Your task to perform on an android device: Go to calendar. Show me events next week Image 0: 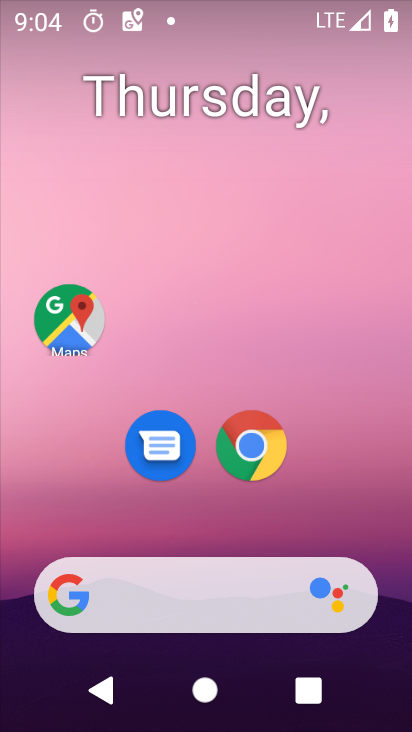
Step 0: drag from (369, 557) to (390, 1)
Your task to perform on an android device: Go to calendar. Show me events next week Image 1: 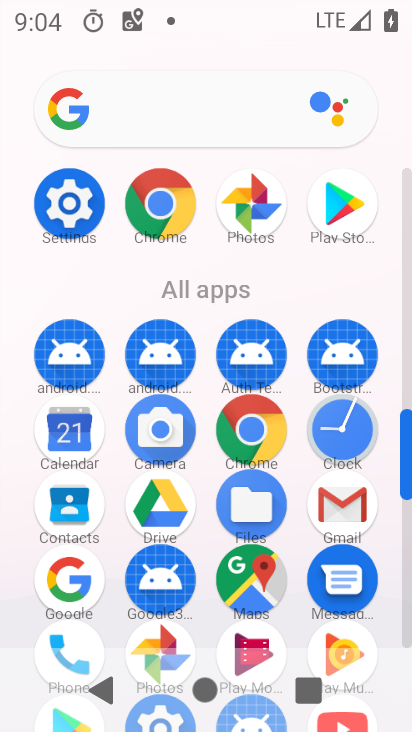
Step 1: click (65, 439)
Your task to perform on an android device: Go to calendar. Show me events next week Image 2: 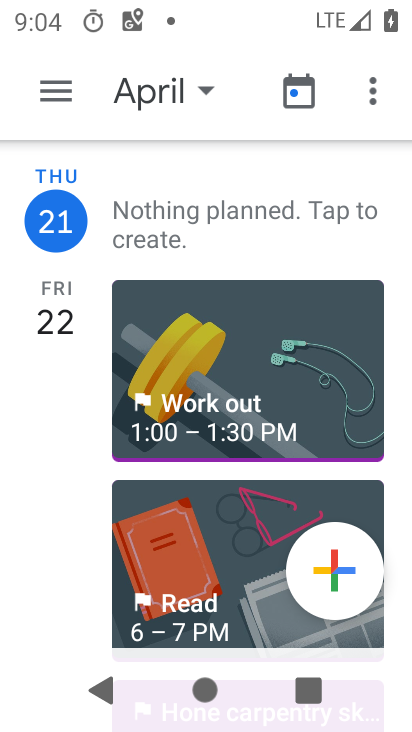
Step 2: click (65, 90)
Your task to perform on an android device: Go to calendar. Show me events next week Image 3: 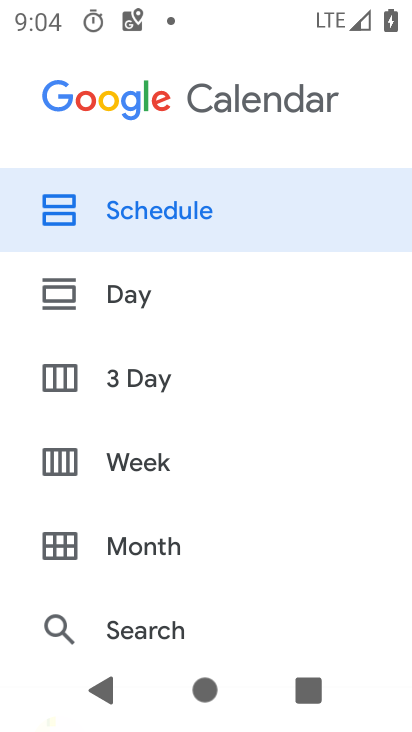
Step 3: click (142, 469)
Your task to perform on an android device: Go to calendar. Show me events next week Image 4: 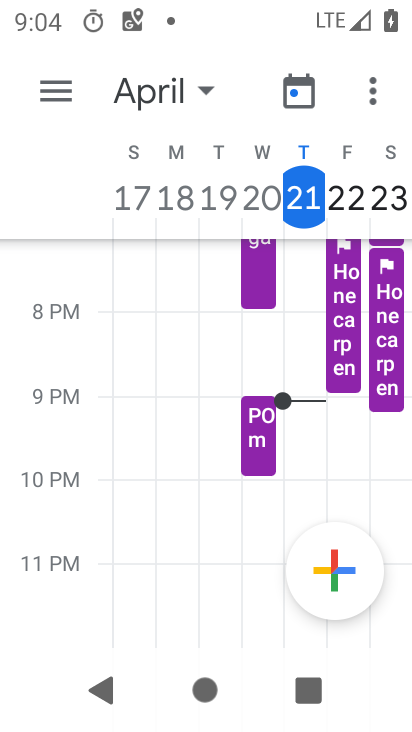
Step 4: drag from (348, 466) to (0, 619)
Your task to perform on an android device: Go to calendar. Show me events next week Image 5: 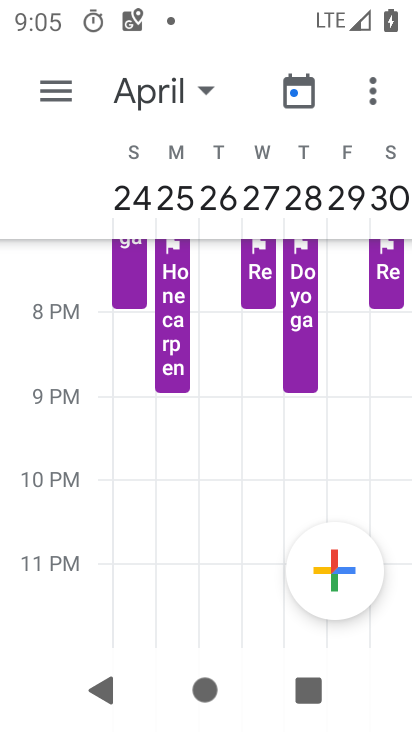
Step 5: drag from (227, 384) to (196, 515)
Your task to perform on an android device: Go to calendar. Show me events next week Image 6: 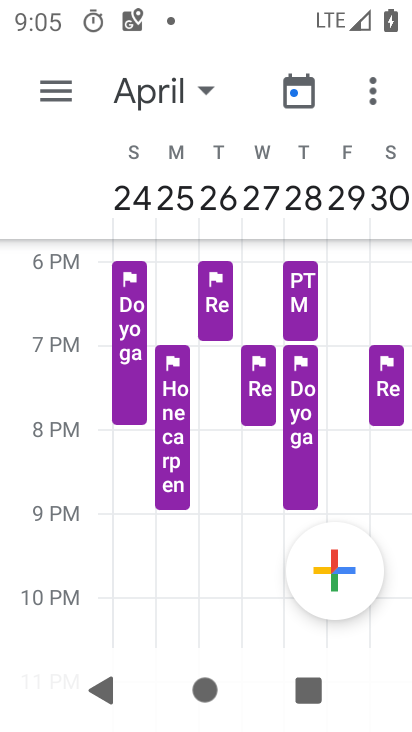
Step 6: click (210, 312)
Your task to perform on an android device: Go to calendar. Show me events next week Image 7: 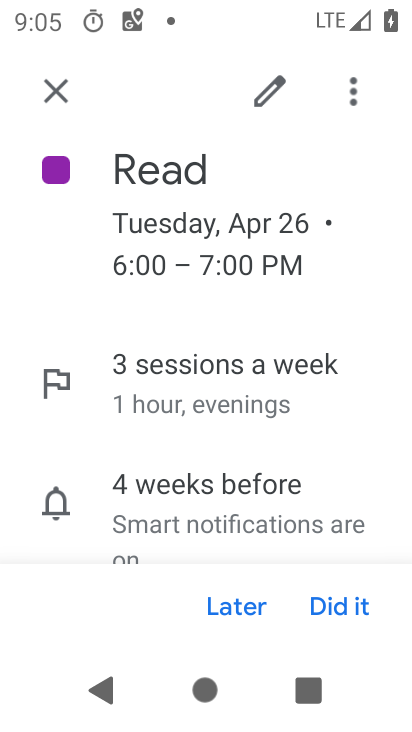
Step 7: task complete